Your task to perform on an android device: Search for Italian restaurants on Maps Image 0: 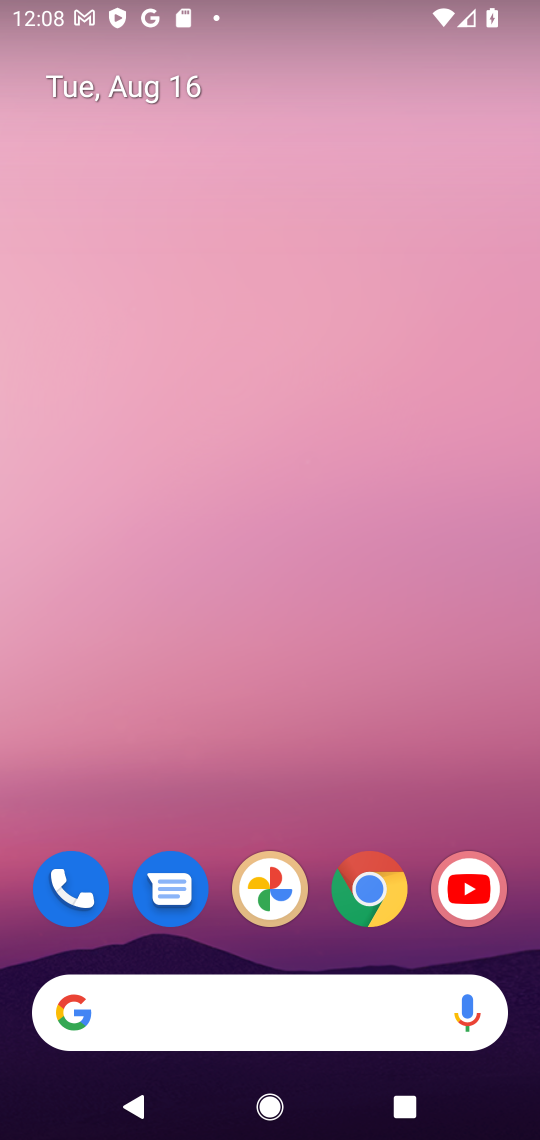
Step 0: drag from (305, 1025) to (466, 14)
Your task to perform on an android device: Search for Italian restaurants on Maps Image 1: 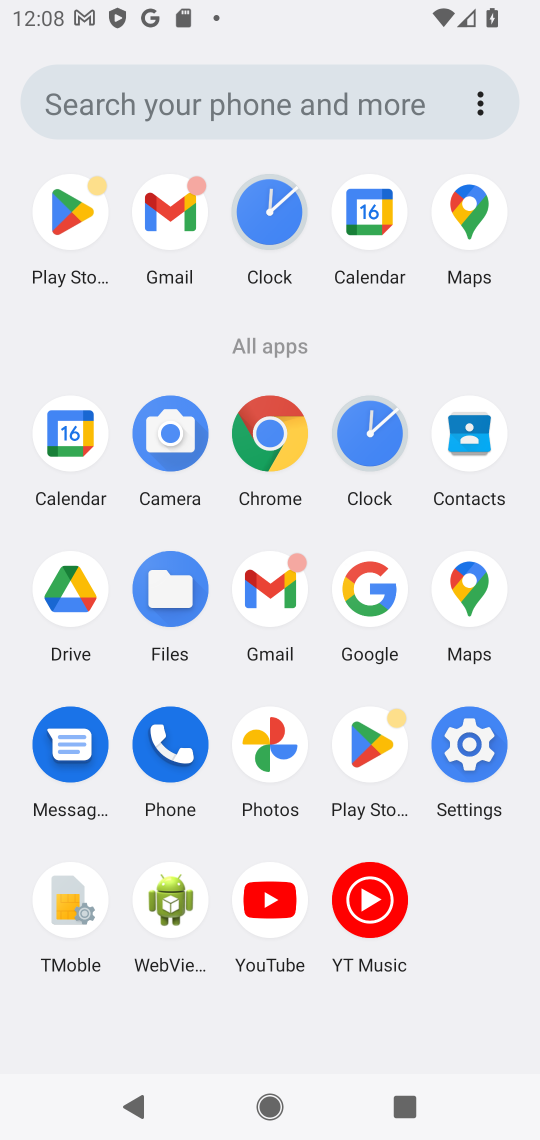
Step 1: click (452, 596)
Your task to perform on an android device: Search for Italian restaurants on Maps Image 2: 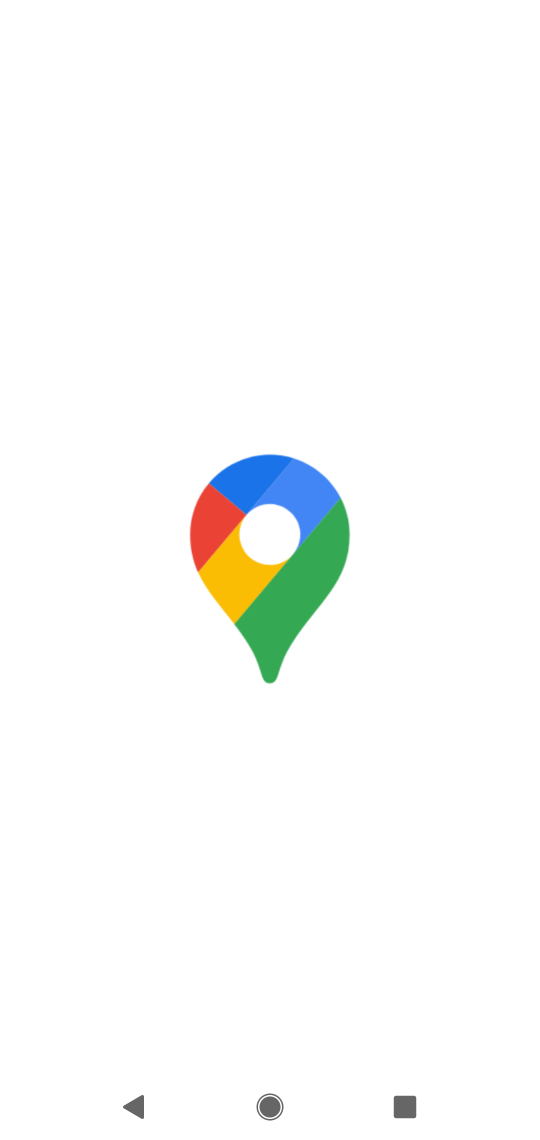
Step 2: task complete